Your task to perform on an android device: change the clock style Image 0: 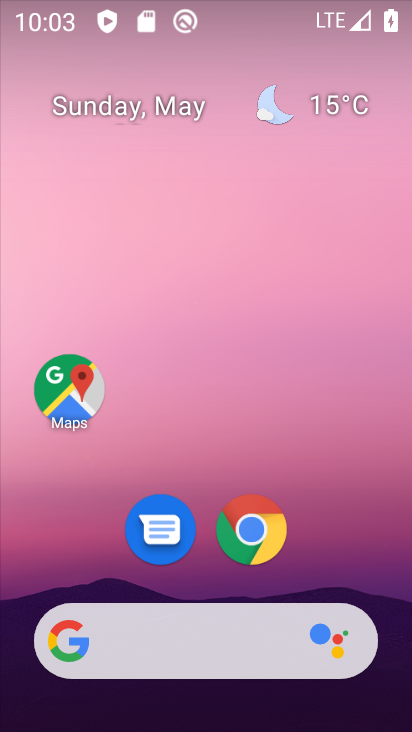
Step 0: drag from (322, 598) to (359, 137)
Your task to perform on an android device: change the clock style Image 1: 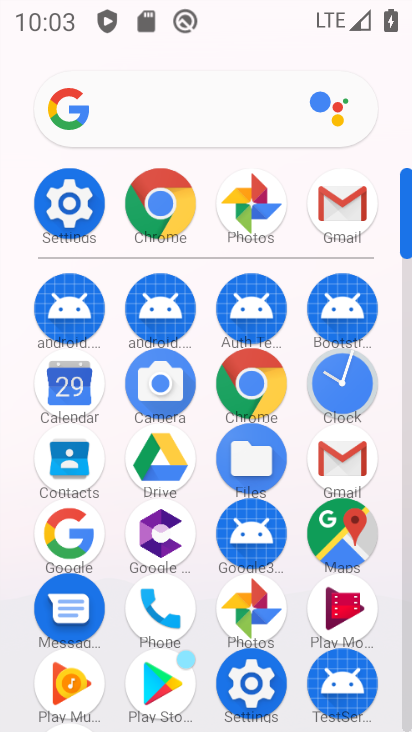
Step 1: click (340, 394)
Your task to perform on an android device: change the clock style Image 2: 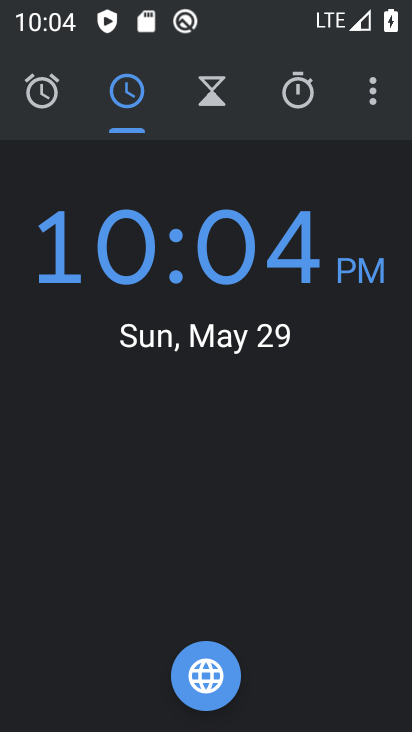
Step 2: drag from (375, 696) to (356, 365)
Your task to perform on an android device: change the clock style Image 3: 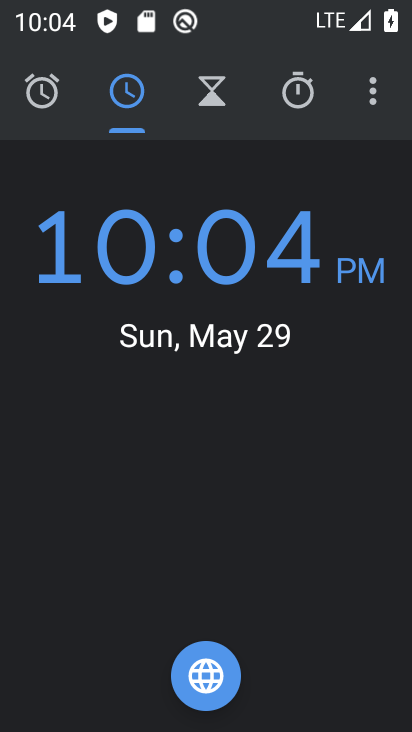
Step 3: click (360, 94)
Your task to perform on an android device: change the clock style Image 4: 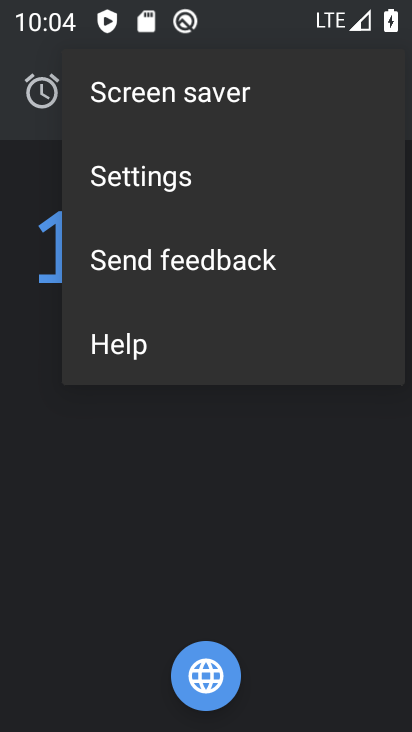
Step 4: click (143, 168)
Your task to perform on an android device: change the clock style Image 5: 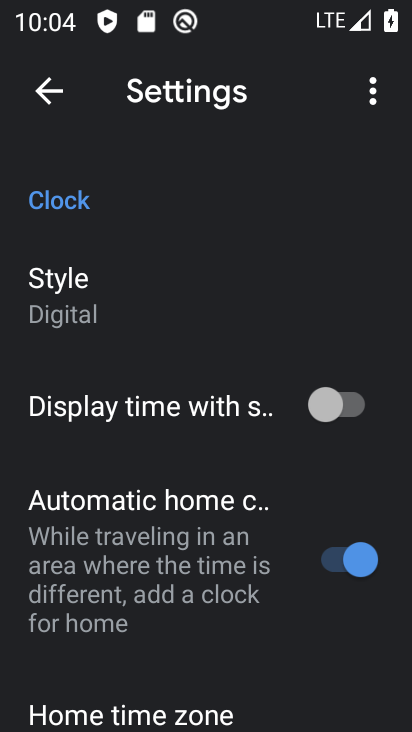
Step 5: task complete